Your task to perform on an android device: delete a single message in the gmail app Image 0: 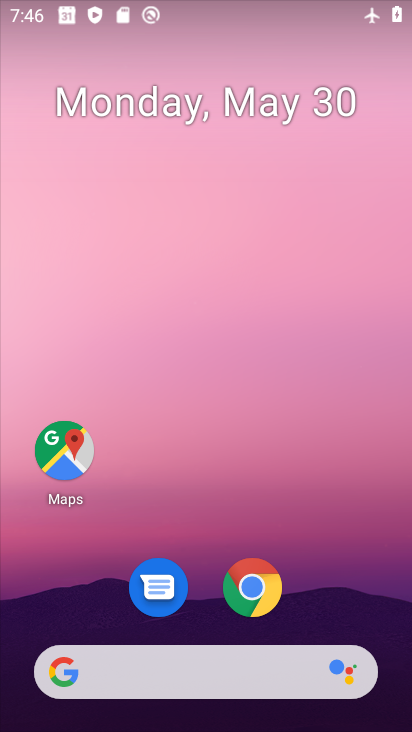
Step 0: drag from (303, 371) to (268, 31)
Your task to perform on an android device: delete a single message in the gmail app Image 1: 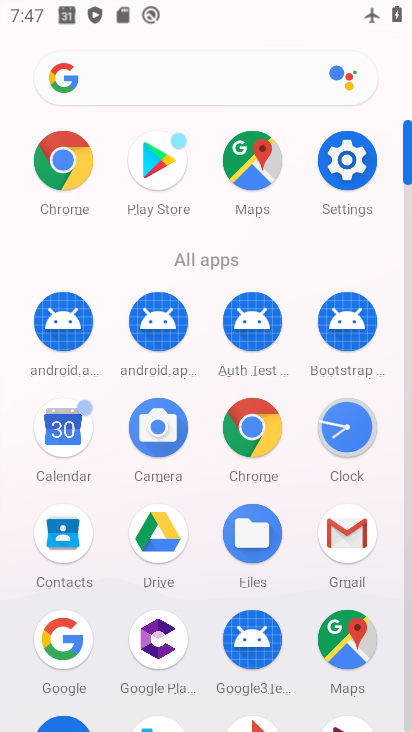
Step 1: drag from (23, 599) to (33, 320)
Your task to perform on an android device: delete a single message in the gmail app Image 2: 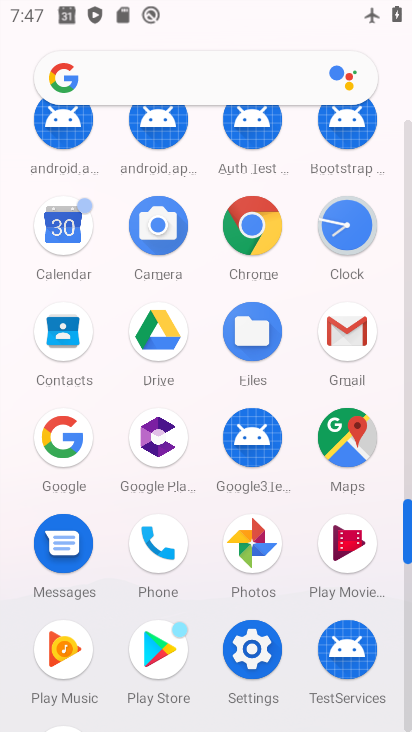
Step 2: click (343, 320)
Your task to perform on an android device: delete a single message in the gmail app Image 3: 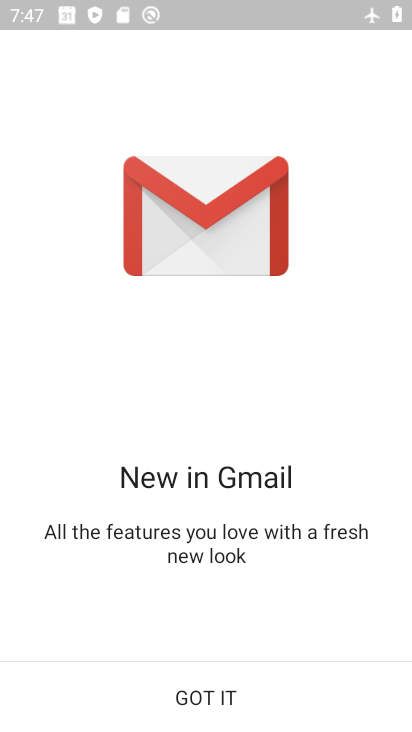
Step 3: click (231, 691)
Your task to perform on an android device: delete a single message in the gmail app Image 4: 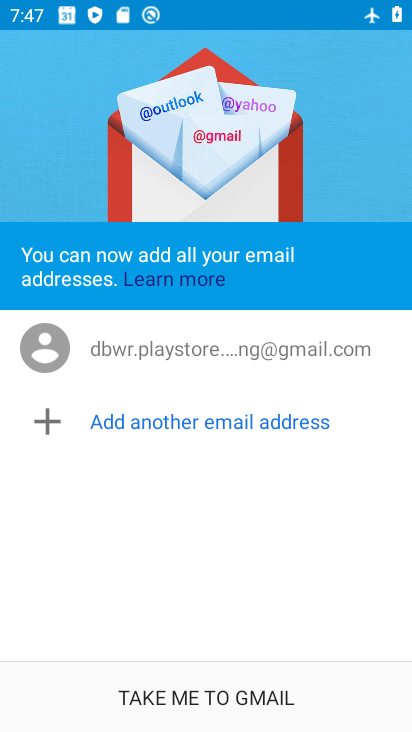
Step 4: click (231, 691)
Your task to perform on an android device: delete a single message in the gmail app Image 5: 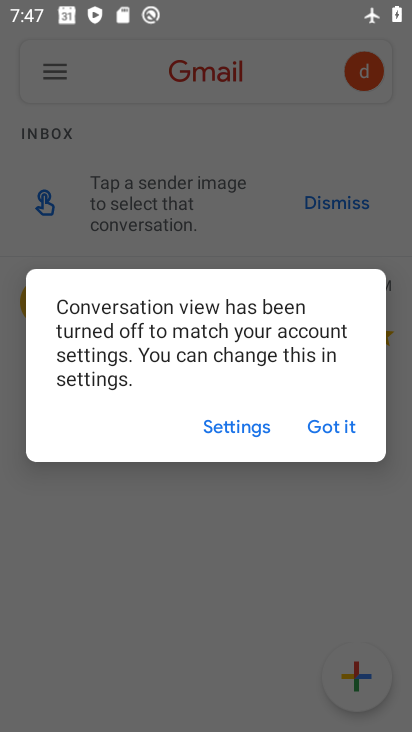
Step 5: click (343, 422)
Your task to perform on an android device: delete a single message in the gmail app Image 6: 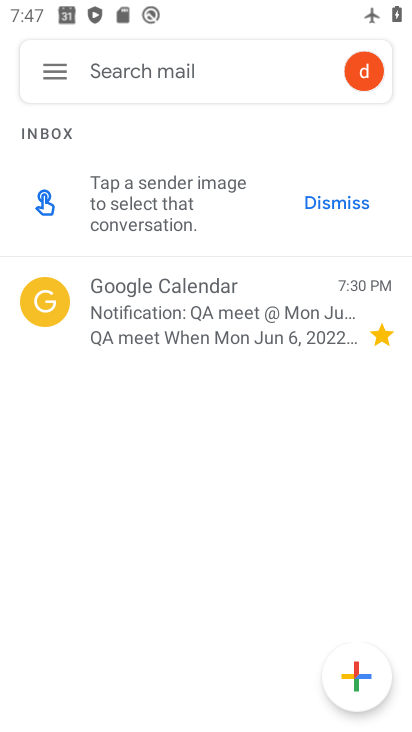
Step 6: click (48, 63)
Your task to perform on an android device: delete a single message in the gmail app Image 7: 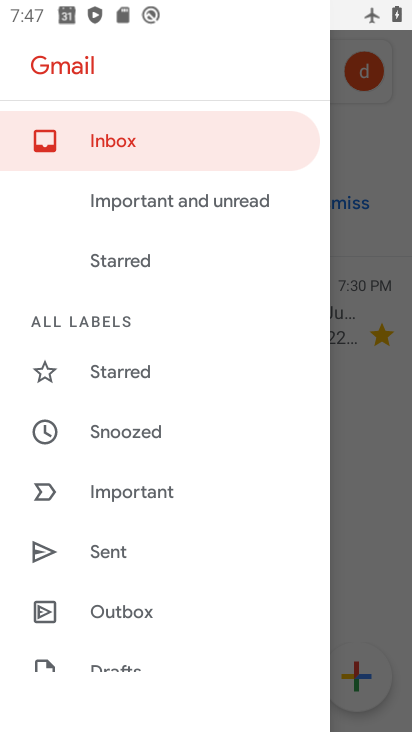
Step 7: click (377, 449)
Your task to perform on an android device: delete a single message in the gmail app Image 8: 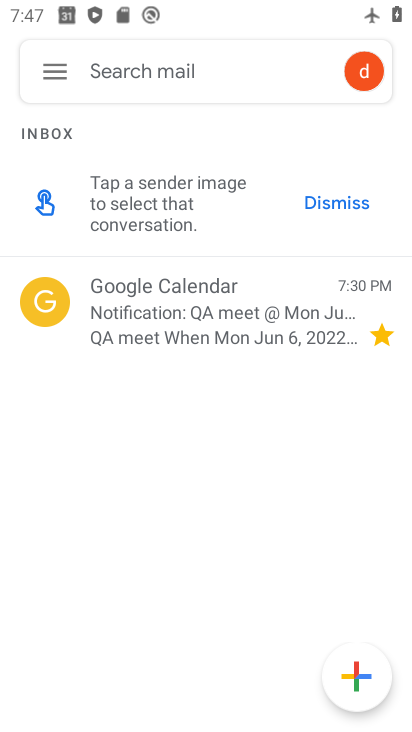
Step 8: click (178, 305)
Your task to perform on an android device: delete a single message in the gmail app Image 9: 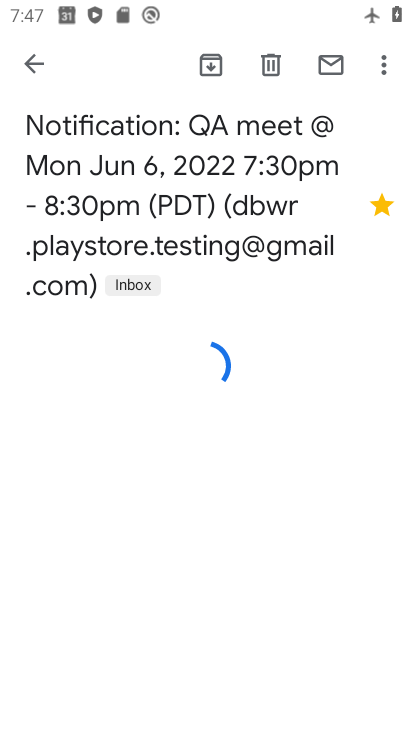
Step 9: click (267, 60)
Your task to perform on an android device: delete a single message in the gmail app Image 10: 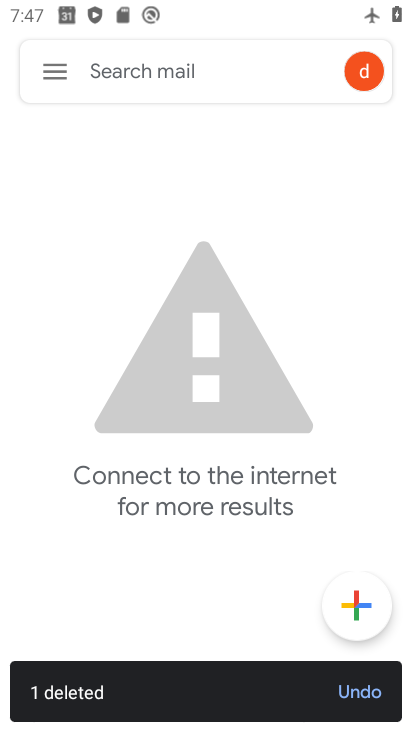
Step 10: task complete